Your task to perform on an android device: Open Yahoo.com Image 0: 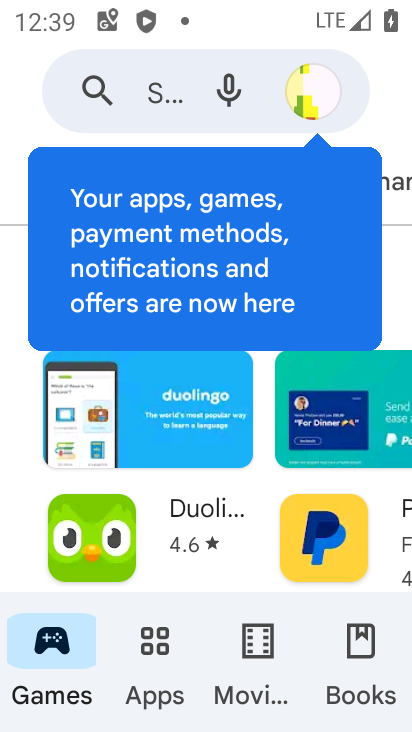
Step 0: press home button
Your task to perform on an android device: Open Yahoo.com Image 1: 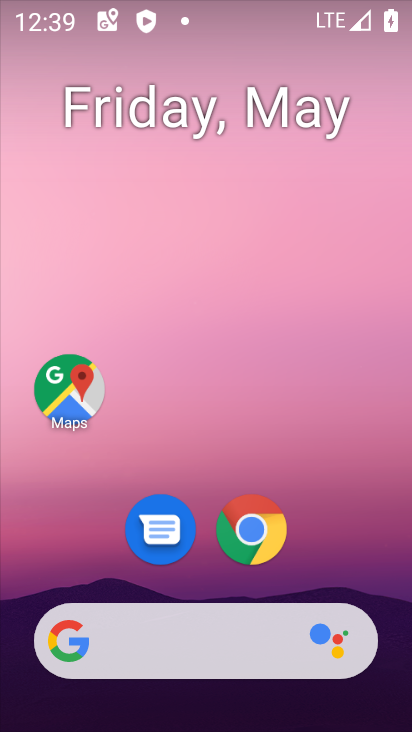
Step 1: click (279, 545)
Your task to perform on an android device: Open Yahoo.com Image 2: 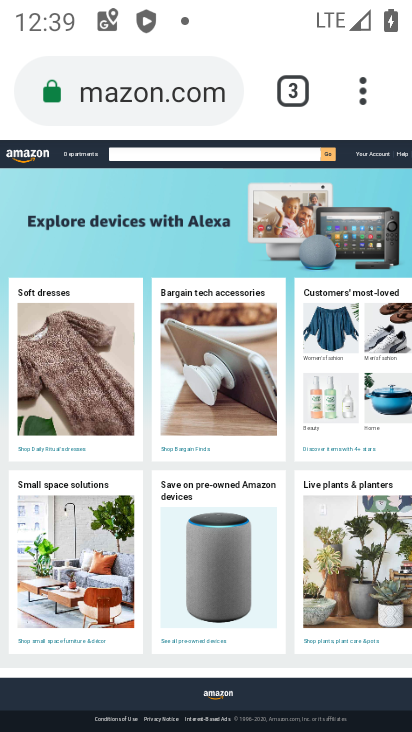
Step 2: click (302, 83)
Your task to perform on an android device: Open Yahoo.com Image 3: 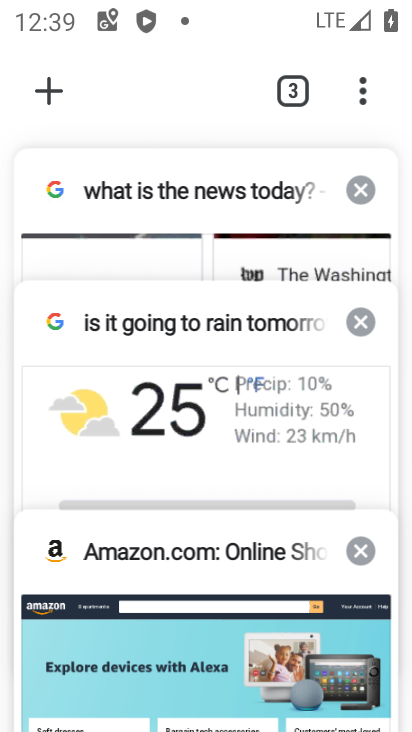
Step 3: click (44, 81)
Your task to perform on an android device: Open Yahoo.com Image 4: 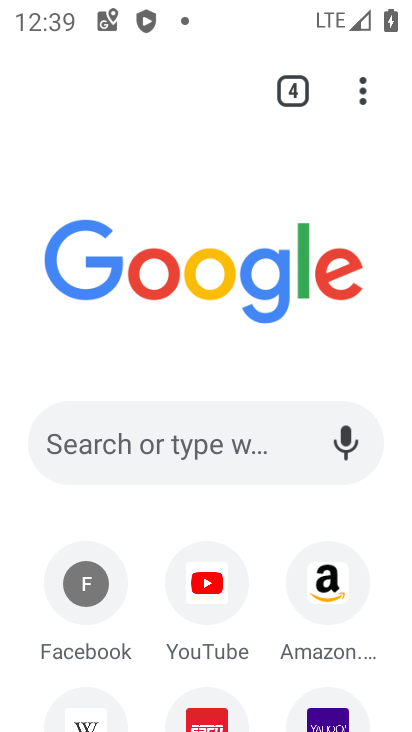
Step 4: click (324, 703)
Your task to perform on an android device: Open Yahoo.com Image 5: 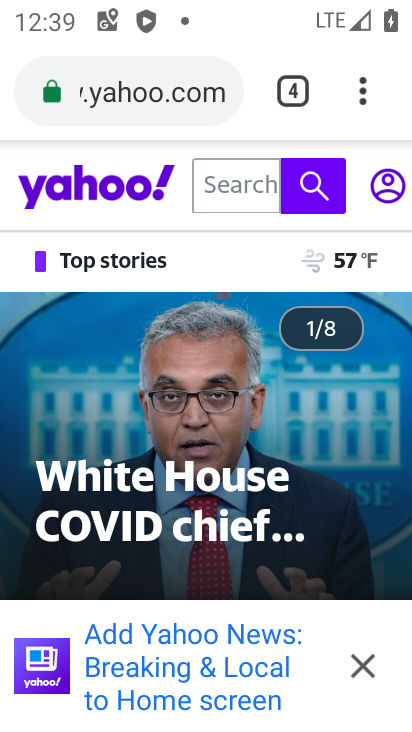
Step 5: task complete